Your task to perform on an android device: turn on translation in the chrome app Image 0: 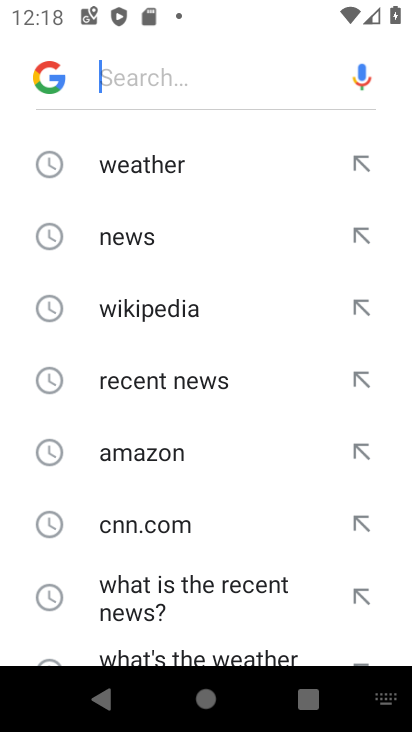
Step 0: press home button
Your task to perform on an android device: turn on translation in the chrome app Image 1: 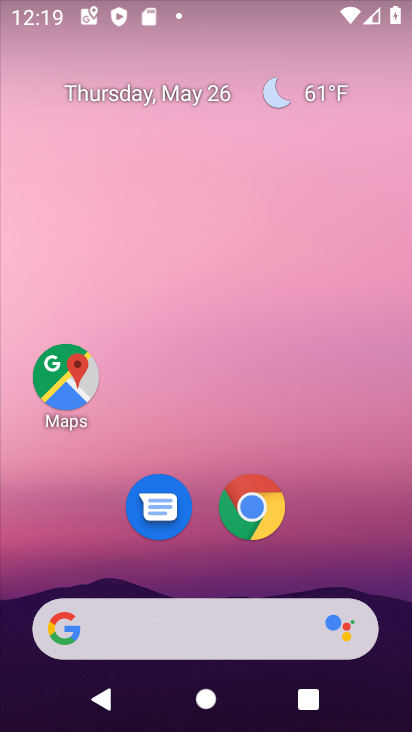
Step 1: drag from (356, 511) to (285, 25)
Your task to perform on an android device: turn on translation in the chrome app Image 2: 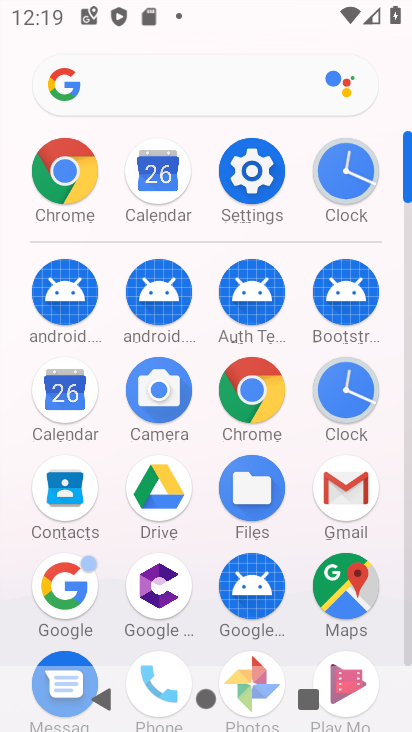
Step 2: click (232, 164)
Your task to perform on an android device: turn on translation in the chrome app Image 3: 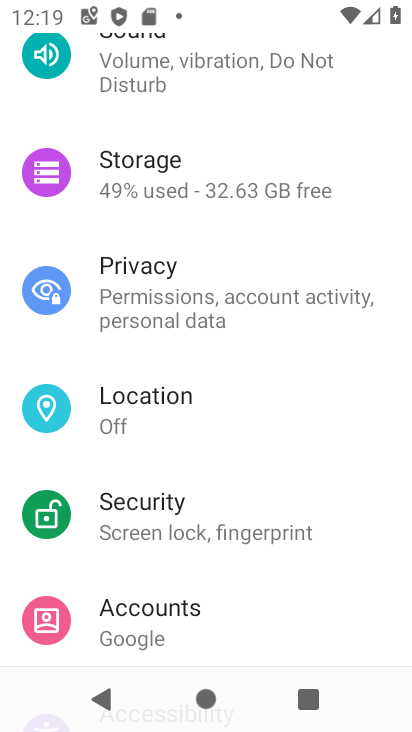
Step 3: press home button
Your task to perform on an android device: turn on translation in the chrome app Image 4: 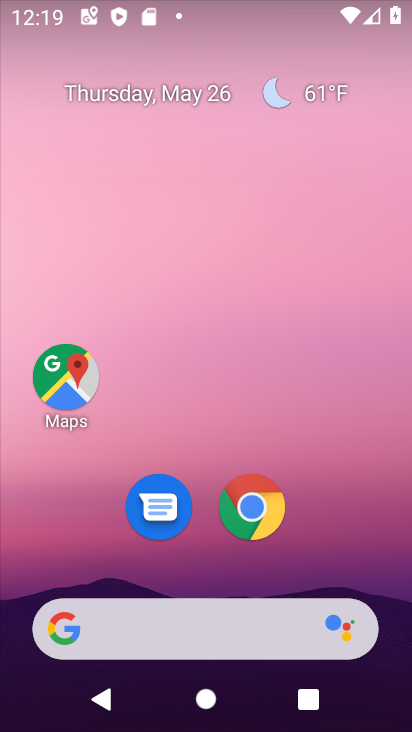
Step 4: click (250, 504)
Your task to perform on an android device: turn on translation in the chrome app Image 5: 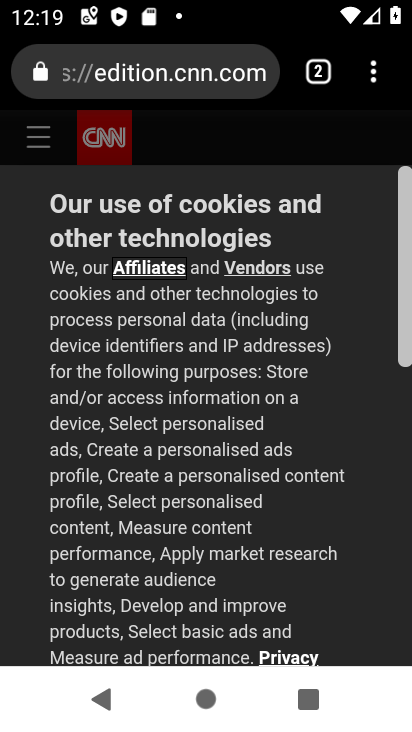
Step 5: click (379, 70)
Your task to perform on an android device: turn on translation in the chrome app Image 6: 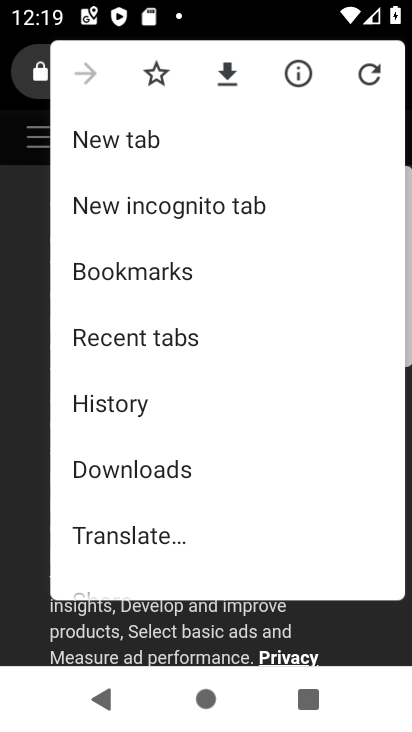
Step 6: drag from (217, 515) to (223, 334)
Your task to perform on an android device: turn on translation in the chrome app Image 7: 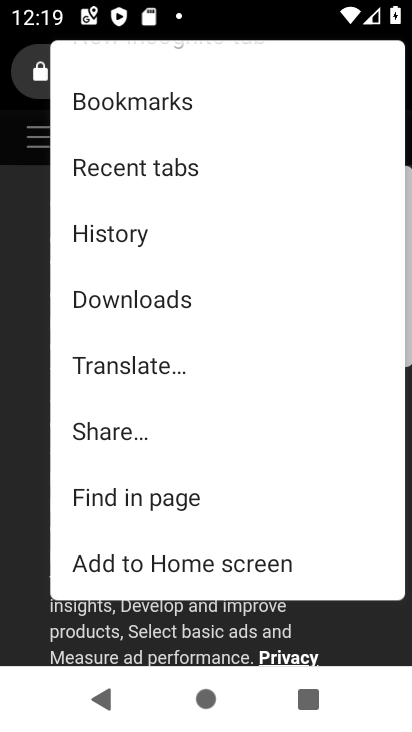
Step 7: drag from (224, 518) to (245, 394)
Your task to perform on an android device: turn on translation in the chrome app Image 8: 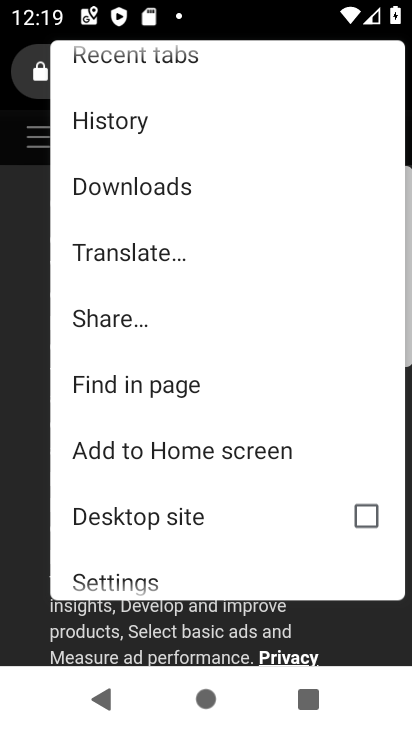
Step 8: click (200, 575)
Your task to perform on an android device: turn on translation in the chrome app Image 9: 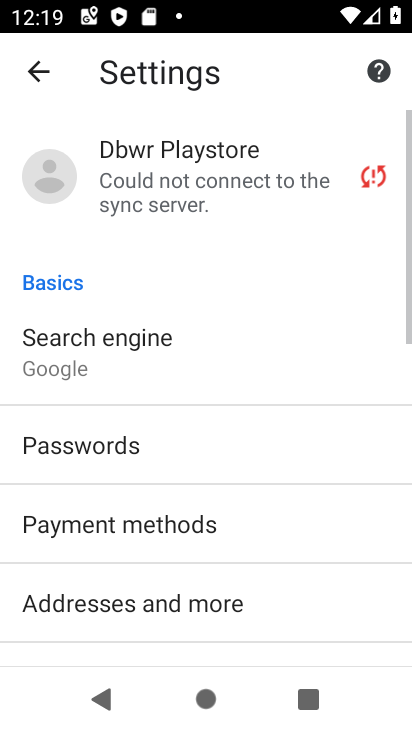
Step 9: drag from (233, 555) to (247, 255)
Your task to perform on an android device: turn on translation in the chrome app Image 10: 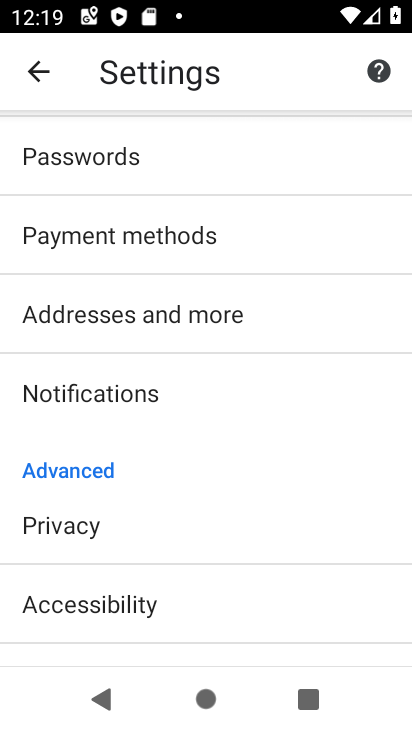
Step 10: drag from (226, 564) to (258, 280)
Your task to perform on an android device: turn on translation in the chrome app Image 11: 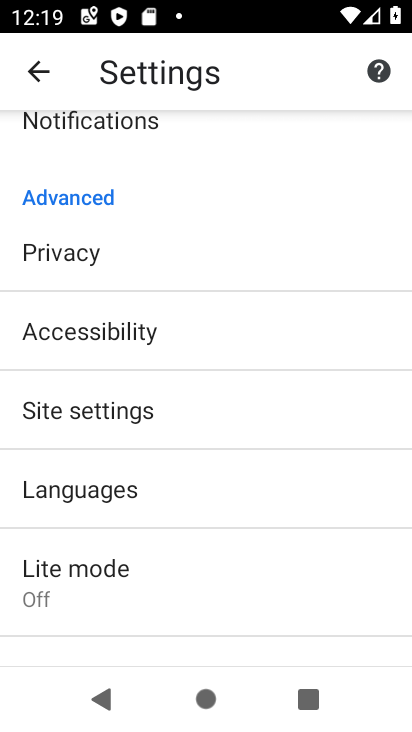
Step 11: click (237, 475)
Your task to perform on an android device: turn on translation in the chrome app Image 12: 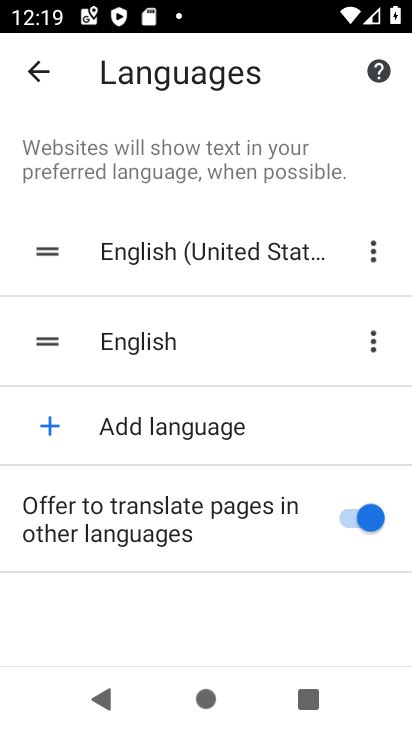
Step 12: click (353, 519)
Your task to perform on an android device: turn on translation in the chrome app Image 13: 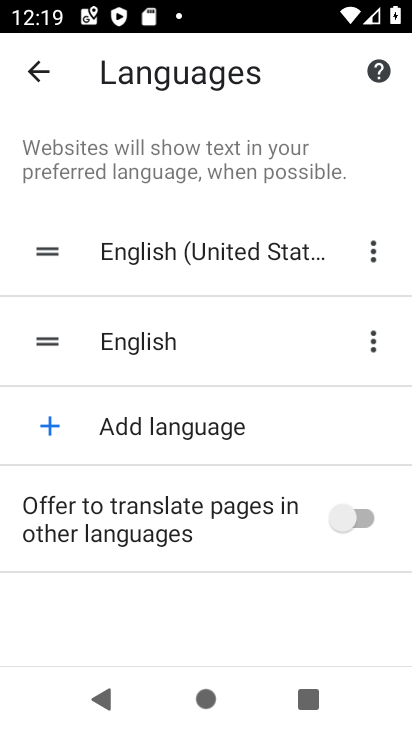
Step 13: task complete